Your task to perform on an android device: create a new album in the google photos Image 0: 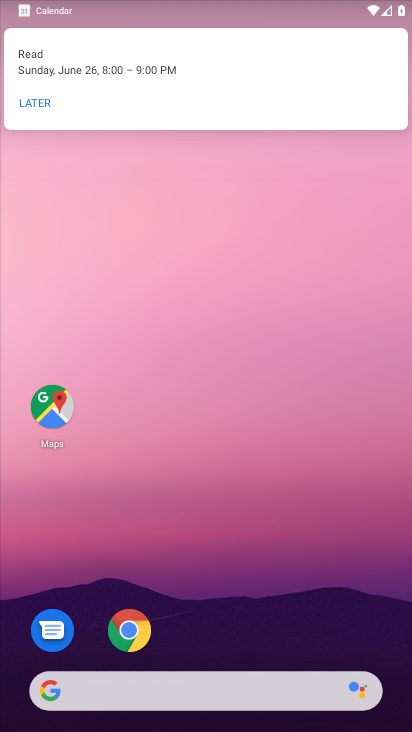
Step 0: drag from (164, 665) to (198, 34)
Your task to perform on an android device: create a new album in the google photos Image 1: 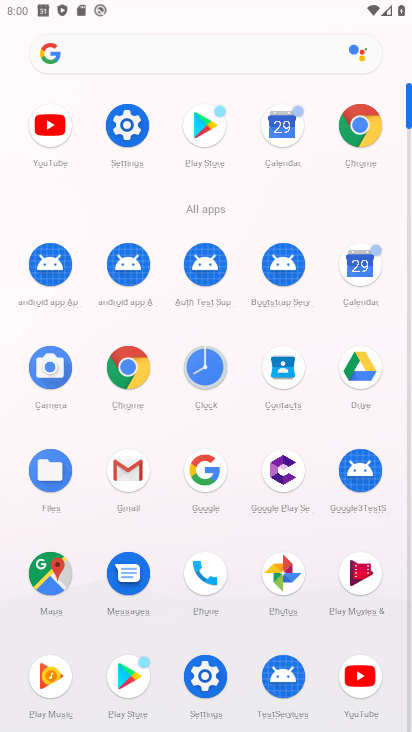
Step 1: click (288, 565)
Your task to perform on an android device: create a new album in the google photos Image 2: 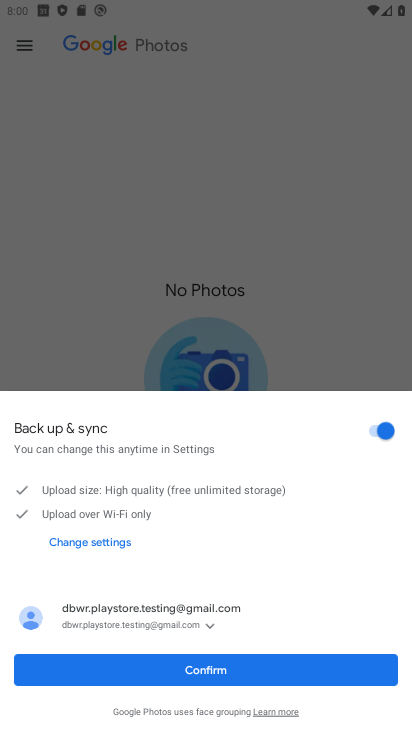
Step 2: click (240, 668)
Your task to perform on an android device: create a new album in the google photos Image 3: 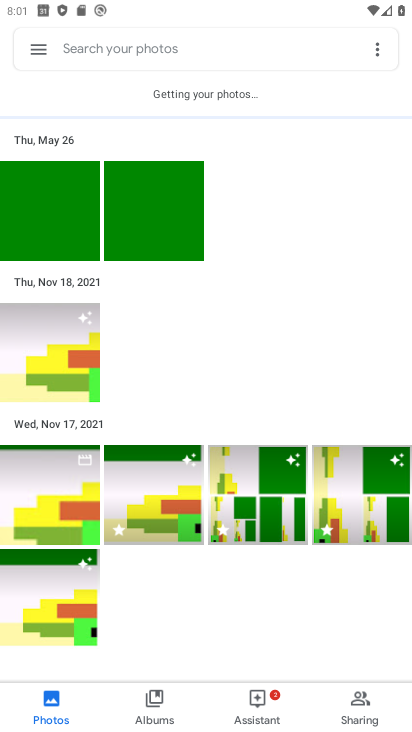
Step 3: click (52, 207)
Your task to perform on an android device: create a new album in the google photos Image 4: 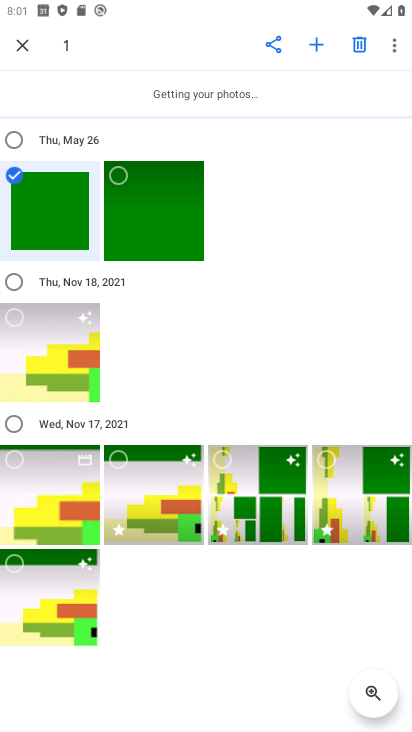
Step 4: click (116, 198)
Your task to perform on an android device: create a new album in the google photos Image 5: 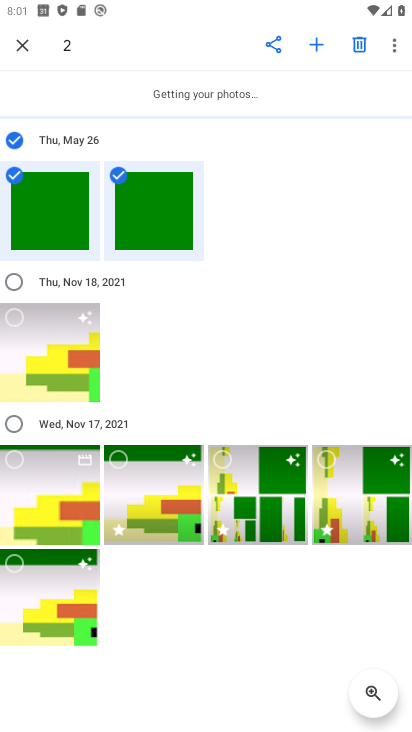
Step 5: click (312, 45)
Your task to perform on an android device: create a new album in the google photos Image 6: 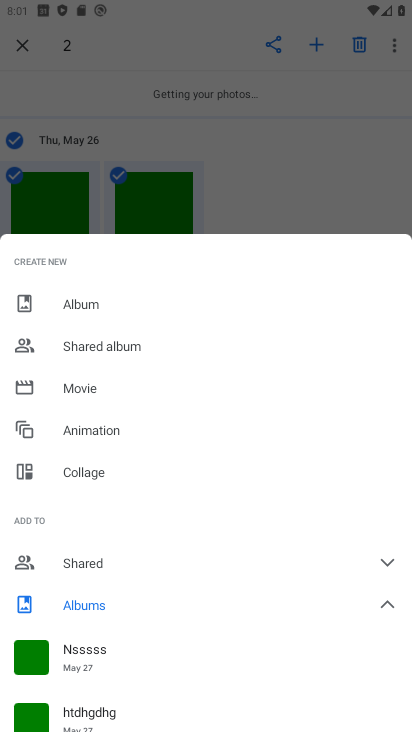
Step 6: click (71, 295)
Your task to perform on an android device: create a new album in the google photos Image 7: 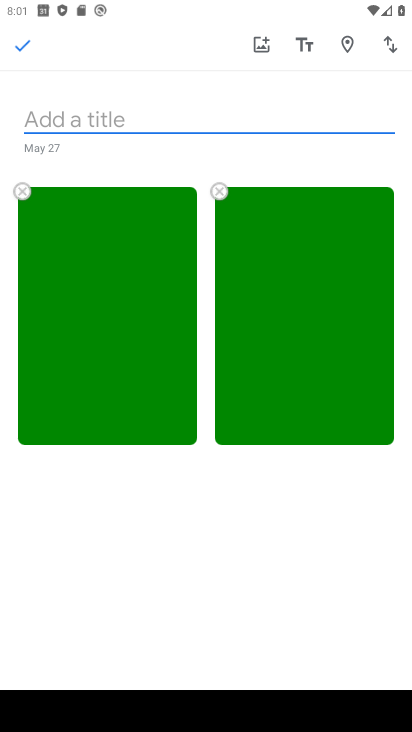
Step 7: type "g"
Your task to perform on an android device: create a new album in the google photos Image 8: 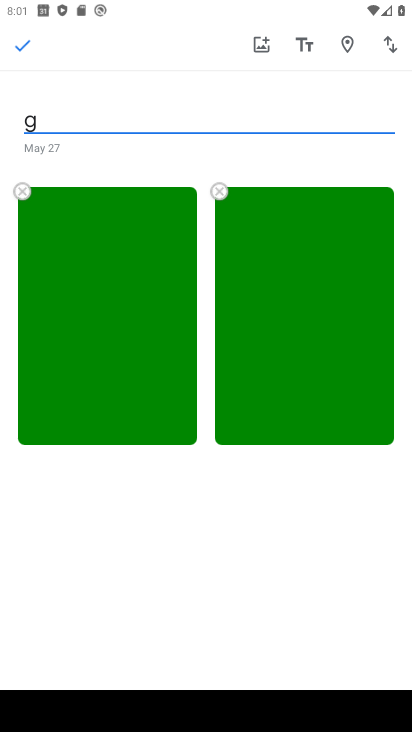
Step 8: click (23, 40)
Your task to perform on an android device: create a new album in the google photos Image 9: 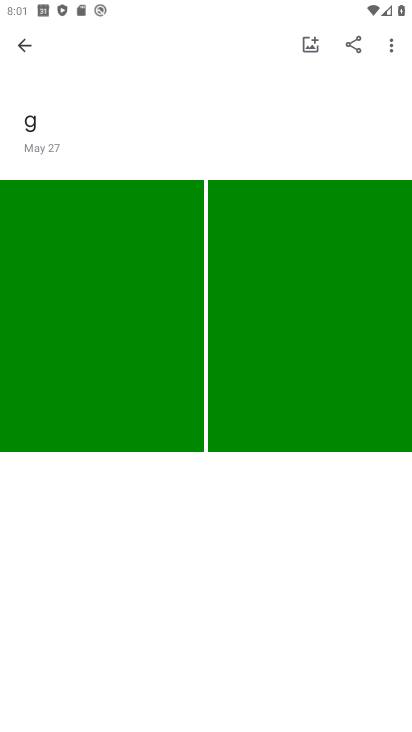
Step 9: task complete